Your task to perform on an android device: toggle priority inbox in the gmail app Image 0: 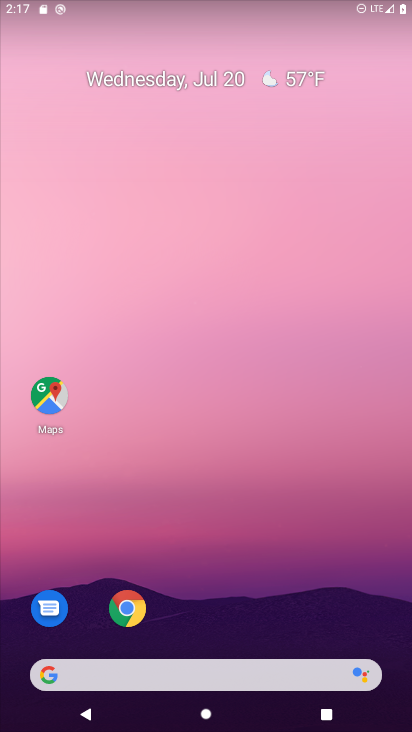
Step 0: drag from (231, 728) to (230, 386)
Your task to perform on an android device: toggle priority inbox in the gmail app Image 1: 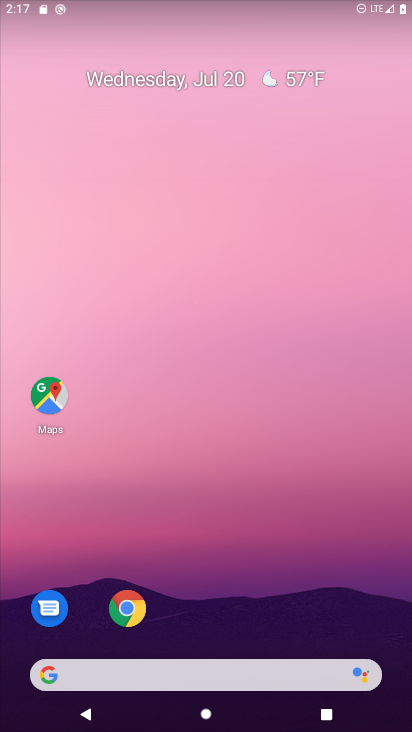
Step 1: drag from (245, 713) to (241, 216)
Your task to perform on an android device: toggle priority inbox in the gmail app Image 2: 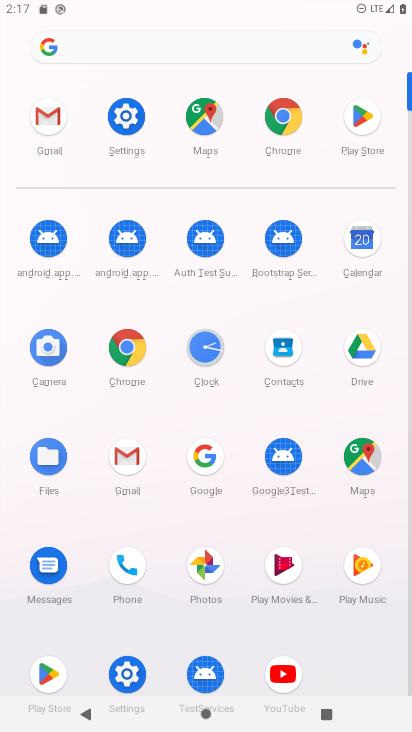
Step 2: click (119, 455)
Your task to perform on an android device: toggle priority inbox in the gmail app Image 3: 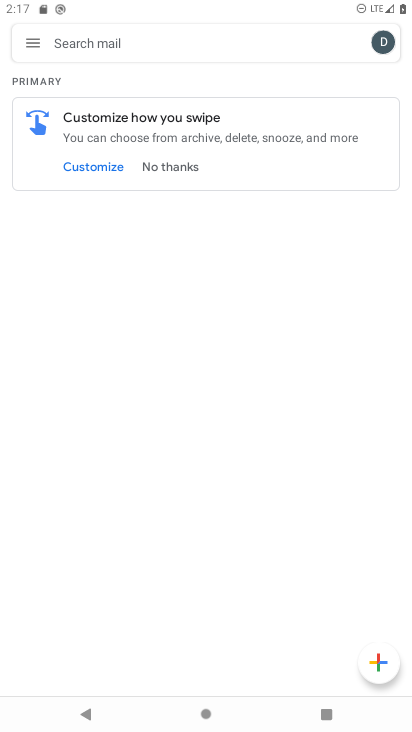
Step 3: click (30, 35)
Your task to perform on an android device: toggle priority inbox in the gmail app Image 4: 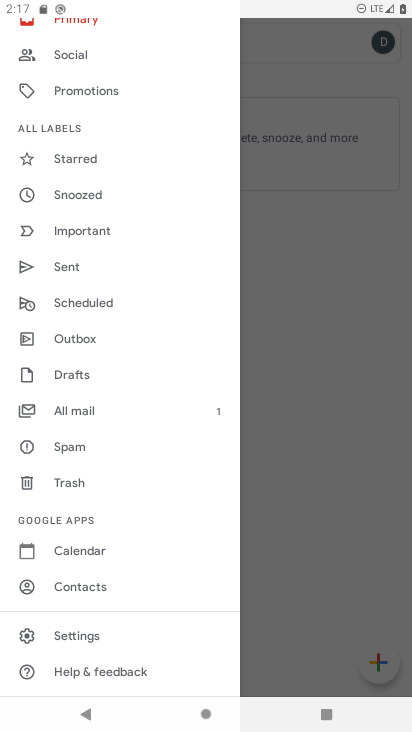
Step 4: click (72, 634)
Your task to perform on an android device: toggle priority inbox in the gmail app Image 5: 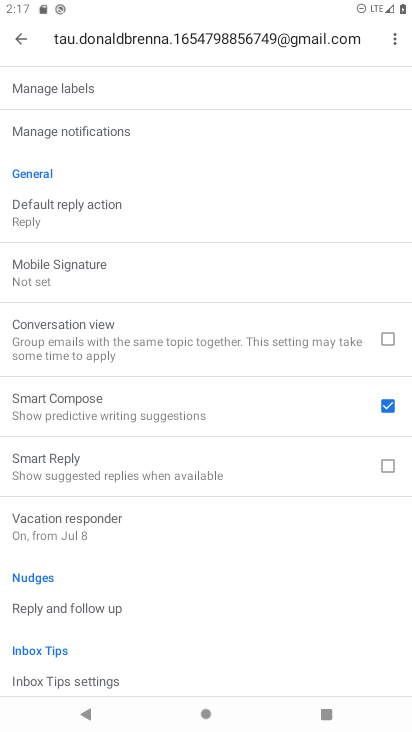
Step 5: drag from (194, 152) to (185, 598)
Your task to perform on an android device: toggle priority inbox in the gmail app Image 6: 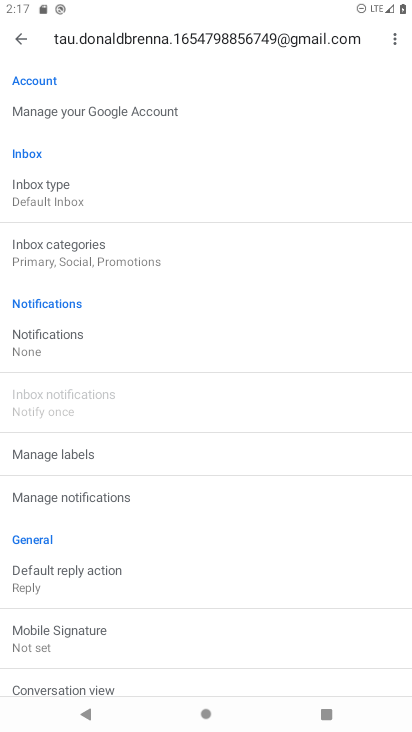
Step 6: click (39, 194)
Your task to perform on an android device: toggle priority inbox in the gmail app Image 7: 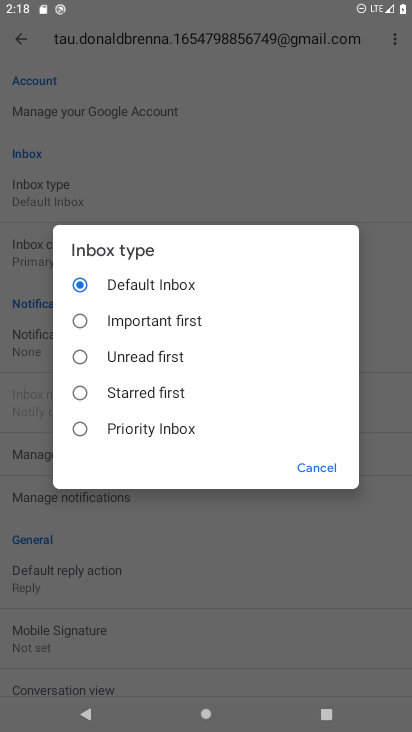
Step 7: click (82, 430)
Your task to perform on an android device: toggle priority inbox in the gmail app Image 8: 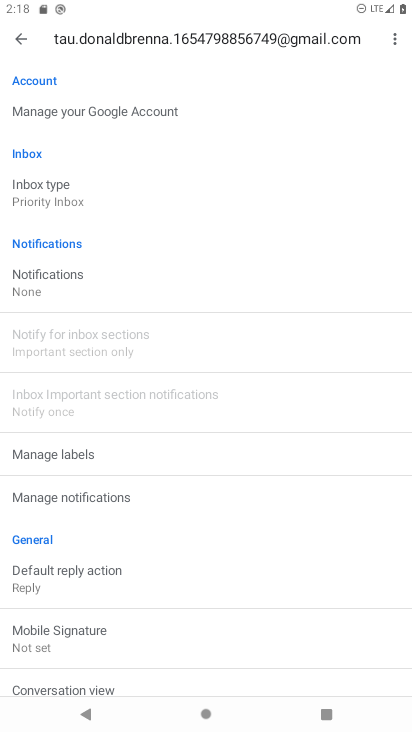
Step 8: task complete